Your task to perform on an android device: turn smart compose on in the gmail app Image 0: 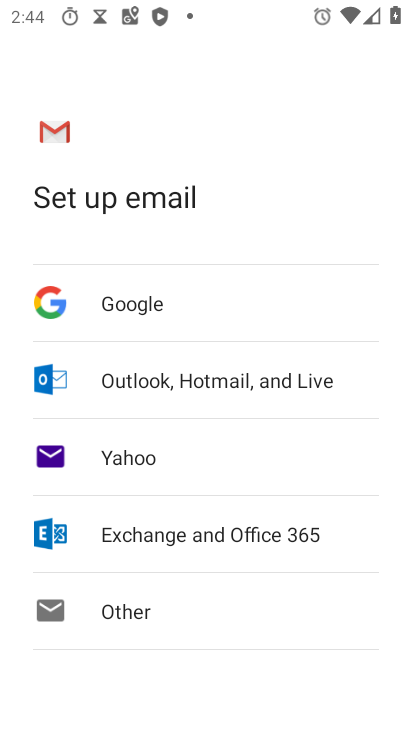
Step 0: press home button
Your task to perform on an android device: turn smart compose on in the gmail app Image 1: 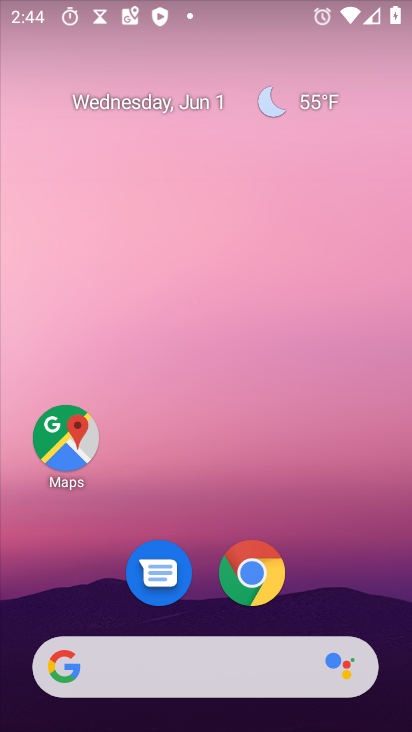
Step 1: drag from (342, 592) to (355, 16)
Your task to perform on an android device: turn smart compose on in the gmail app Image 2: 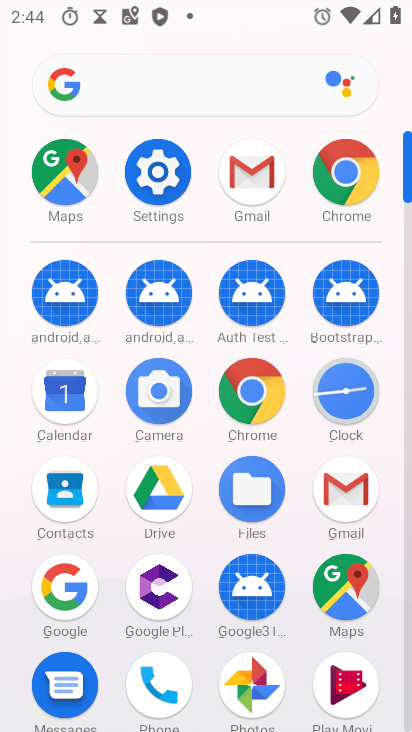
Step 2: click (257, 178)
Your task to perform on an android device: turn smart compose on in the gmail app Image 3: 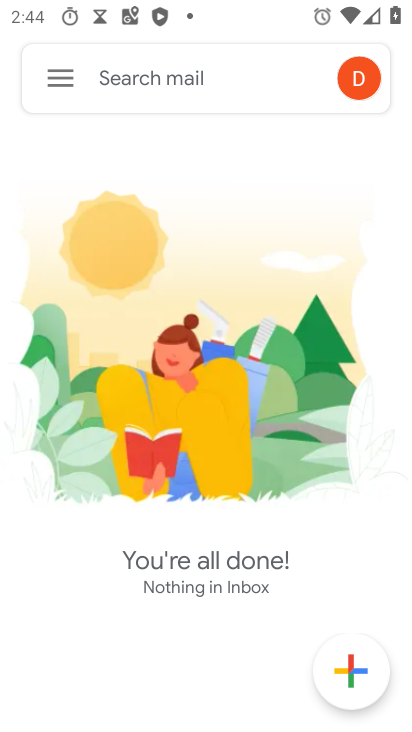
Step 3: click (46, 102)
Your task to perform on an android device: turn smart compose on in the gmail app Image 4: 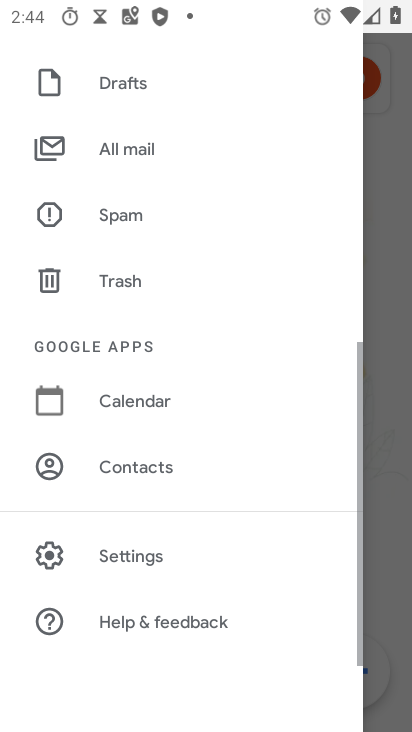
Step 4: click (133, 571)
Your task to perform on an android device: turn smart compose on in the gmail app Image 5: 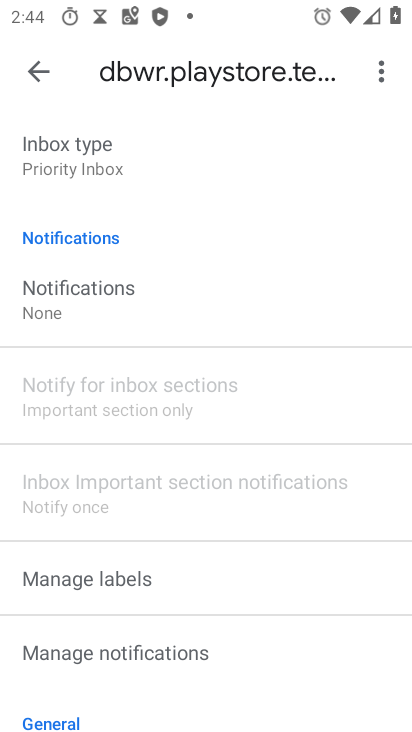
Step 5: task complete